Your task to perform on an android device: add a label to a message in the gmail app Image 0: 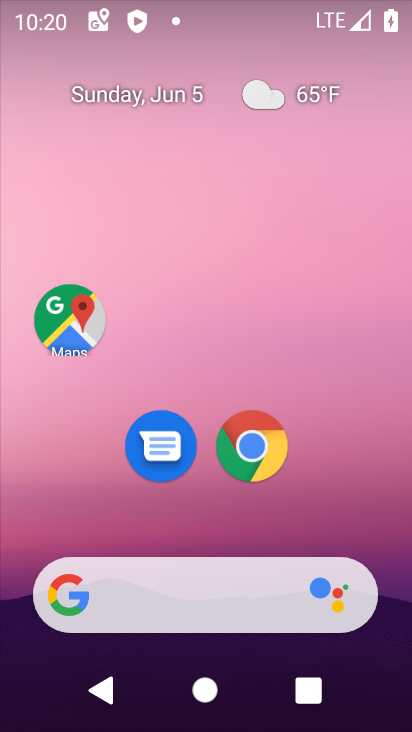
Step 0: drag from (221, 528) to (223, 106)
Your task to perform on an android device: add a label to a message in the gmail app Image 1: 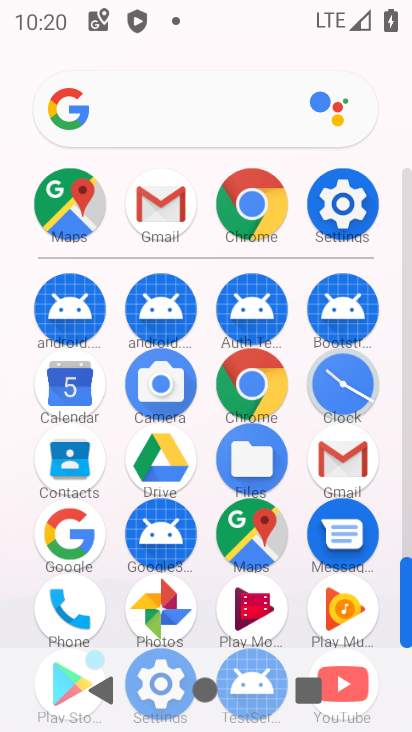
Step 1: click (355, 480)
Your task to perform on an android device: add a label to a message in the gmail app Image 2: 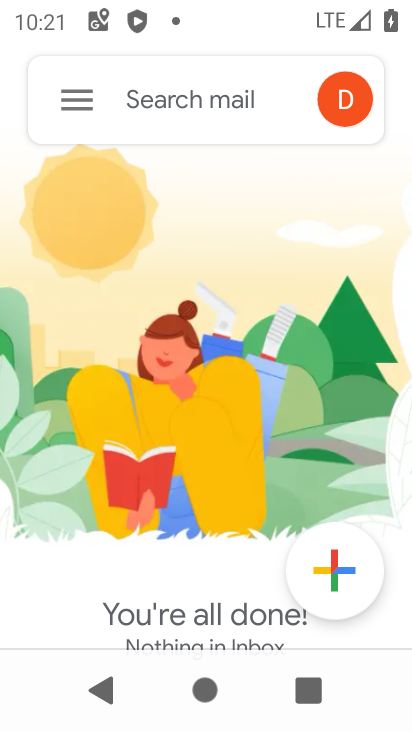
Step 2: click (81, 92)
Your task to perform on an android device: add a label to a message in the gmail app Image 3: 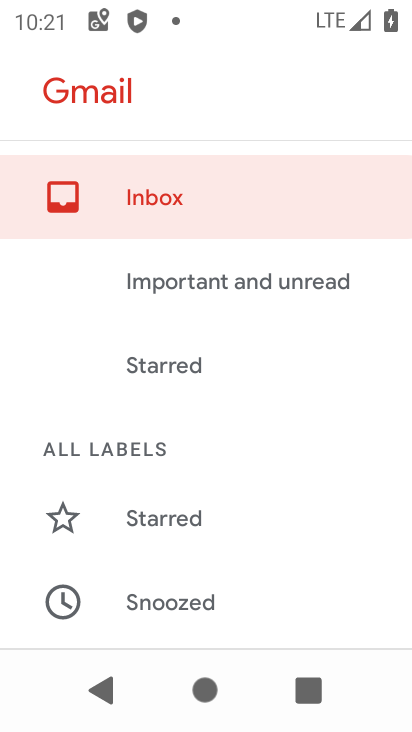
Step 3: drag from (238, 554) to (249, 219)
Your task to perform on an android device: add a label to a message in the gmail app Image 4: 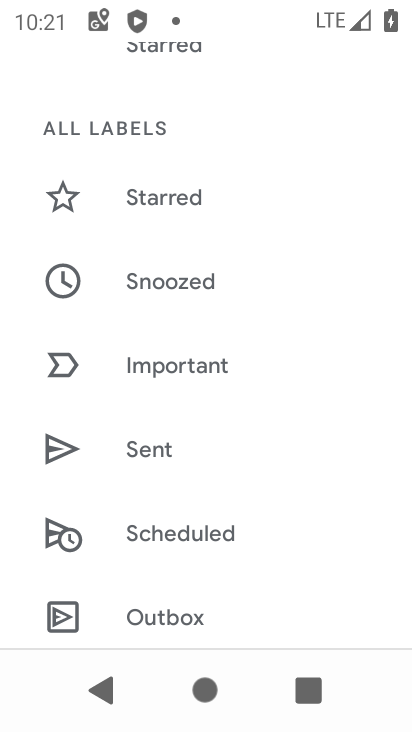
Step 4: drag from (259, 579) to (254, 249)
Your task to perform on an android device: add a label to a message in the gmail app Image 5: 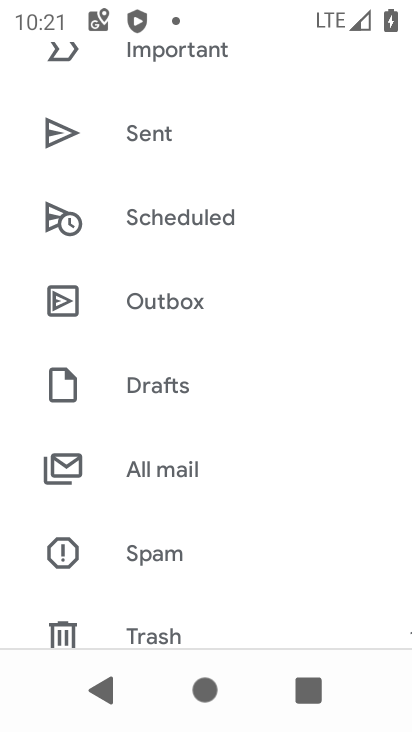
Step 5: drag from (179, 584) to (193, 212)
Your task to perform on an android device: add a label to a message in the gmail app Image 6: 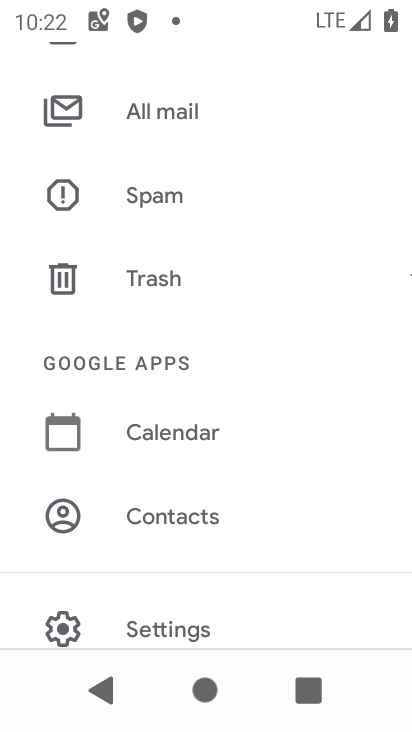
Step 6: drag from (239, 277) to (272, 505)
Your task to perform on an android device: add a label to a message in the gmail app Image 7: 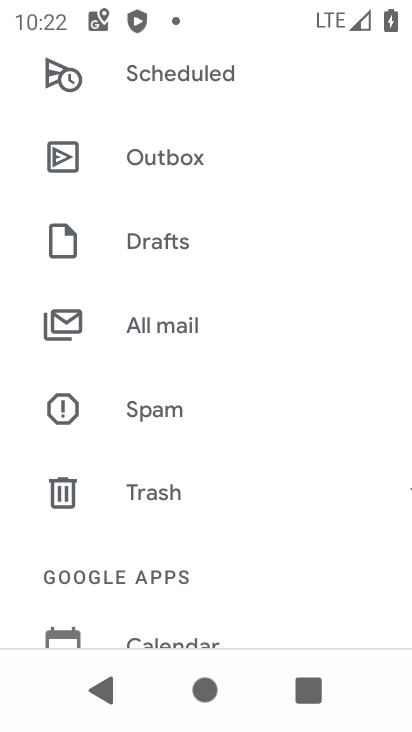
Step 7: click (172, 322)
Your task to perform on an android device: add a label to a message in the gmail app Image 8: 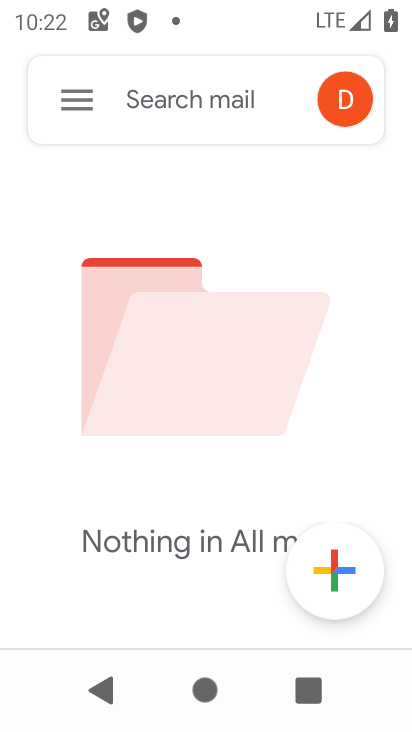
Step 8: task complete